Your task to perform on an android device: refresh tabs in the chrome app Image 0: 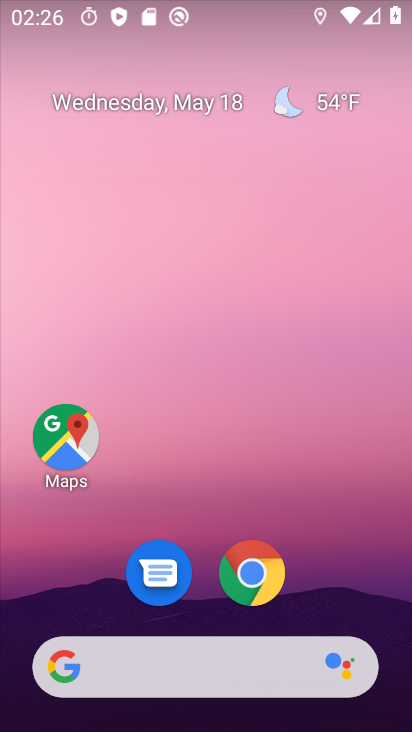
Step 0: click (261, 568)
Your task to perform on an android device: refresh tabs in the chrome app Image 1: 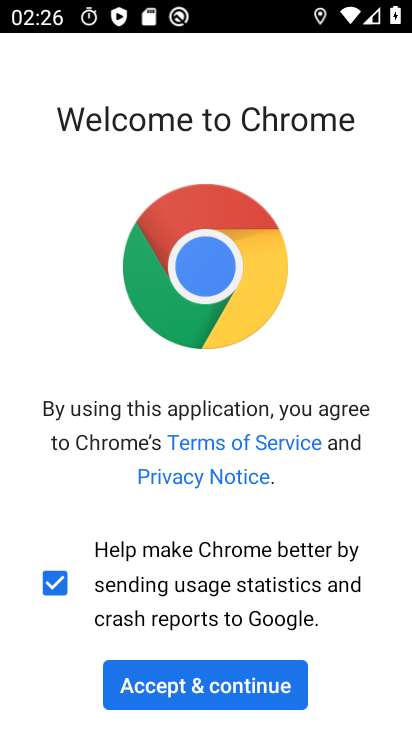
Step 1: click (192, 673)
Your task to perform on an android device: refresh tabs in the chrome app Image 2: 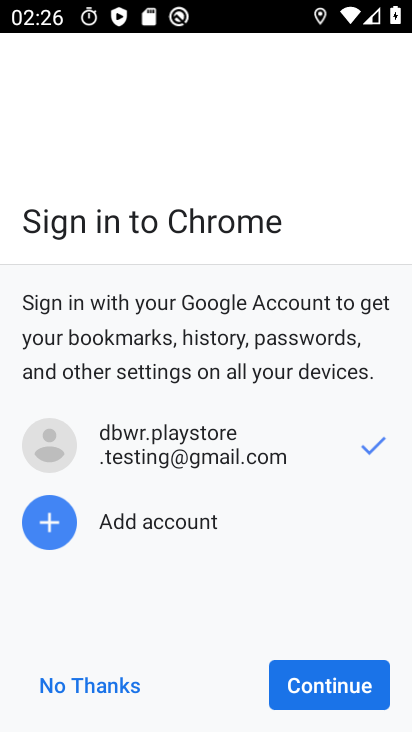
Step 2: click (298, 673)
Your task to perform on an android device: refresh tabs in the chrome app Image 3: 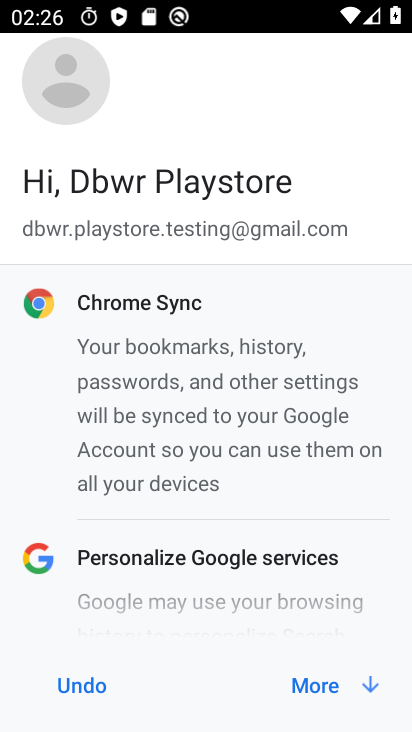
Step 3: click (305, 678)
Your task to perform on an android device: refresh tabs in the chrome app Image 4: 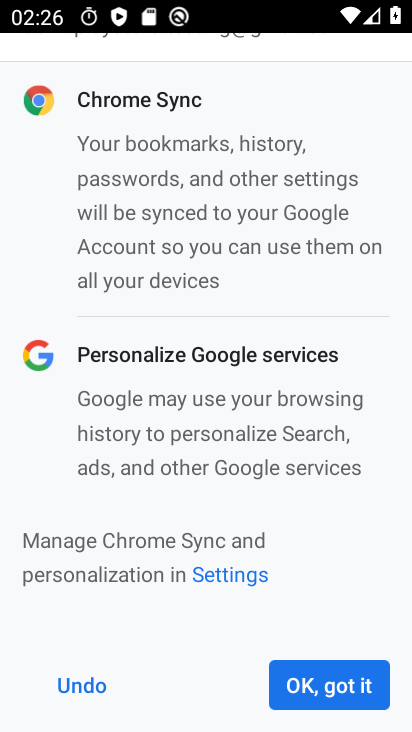
Step 4: click (305, 678)
Your task to perform on an android device: refresh tabs in the chrome app Image 5: 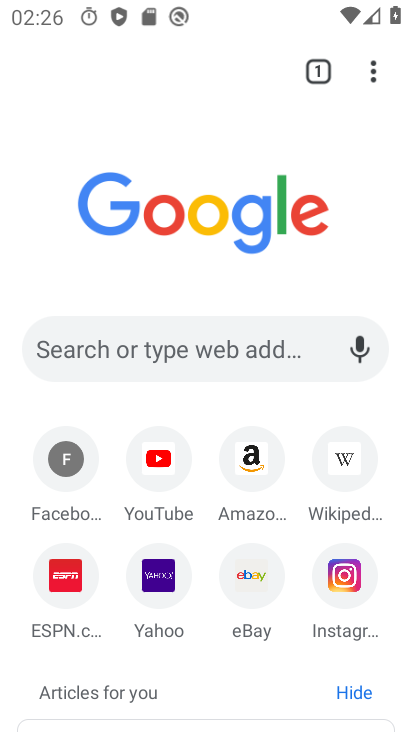
Step 5: click (369, 71)
Your task to perform on an android device: refresh tabs in the chrome app Image 6: 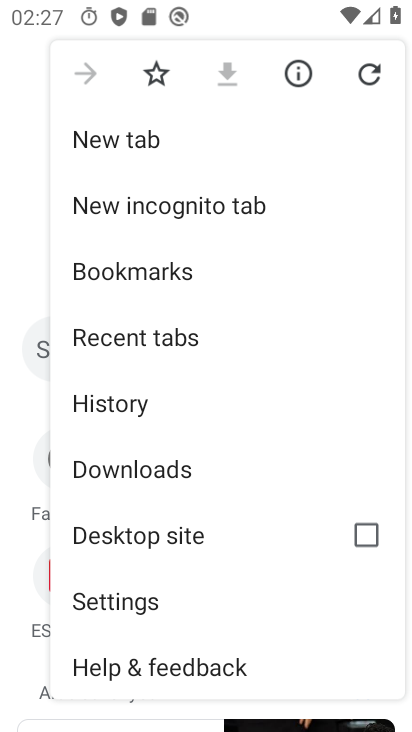
Step 6: click (360, 89)
Your task to perform on an android device: refresh tabs in the chrome app Image 7: 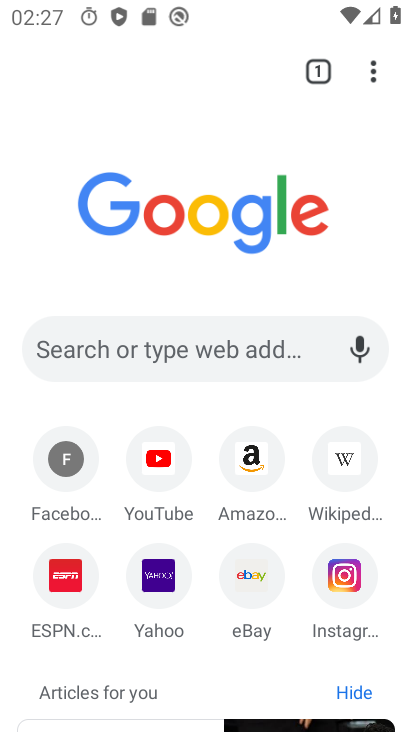
Step 7: task complete